Your task to perform on an android device: Open calendar and show me the second week of next month Image 0: 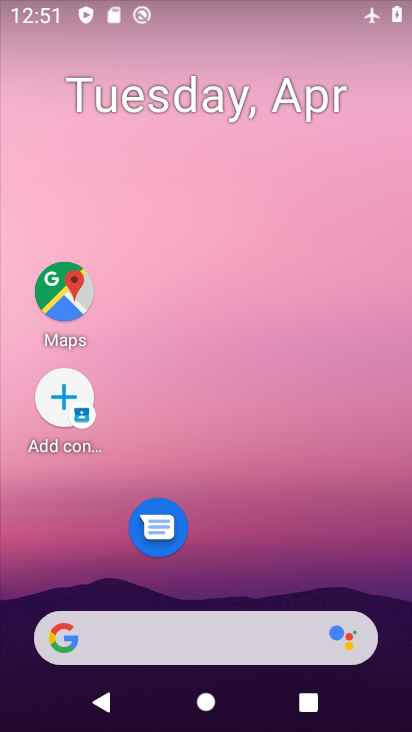
Step 0: drag from (232, 587) to (239, 37)
Your task to perform on an android device: Open calendar and show me the second week of next month Image 1: 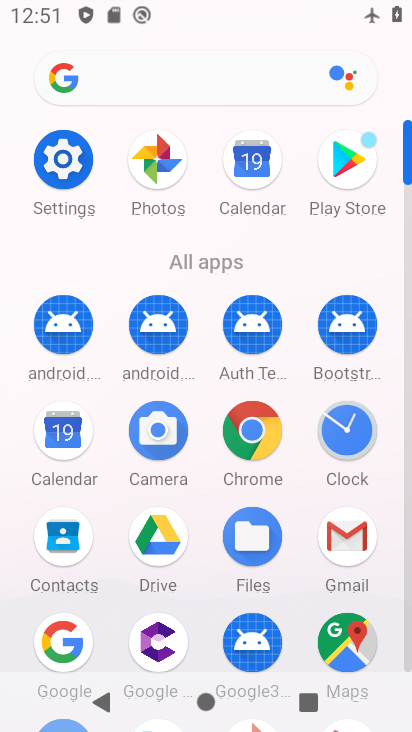
Step 1: click (59, 445)
Your task to perform on an android device: Open calendar and show me the second week of next month Image 2: 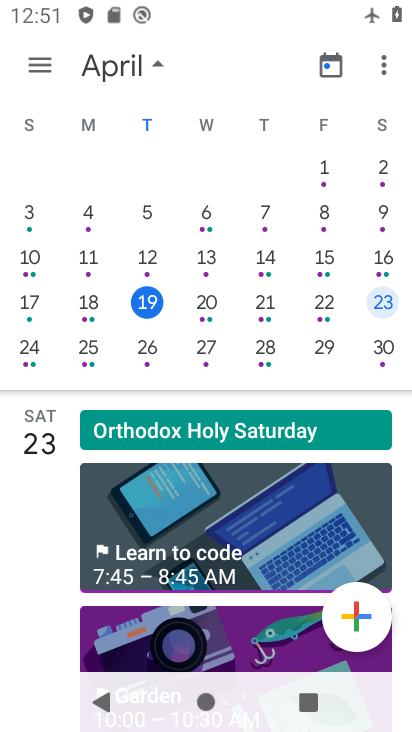
Step 2: drag from (299, 286) to (8, 281)
Your task to perform on an android device: Open calendar and show me the second week of next month Image 3: 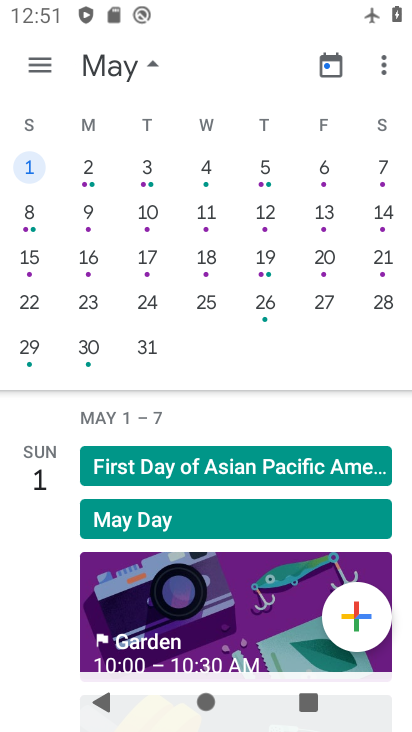
Step 3: click (84, 210)
Your task to perform on an android device: Open calendar and show me the second week of next month Image 4: 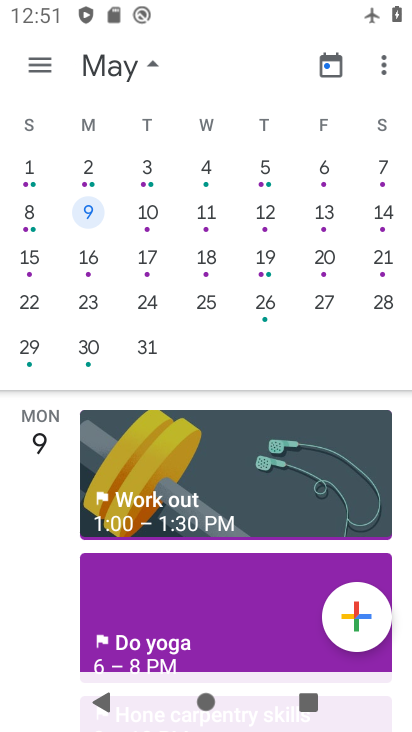
Step 4: click (45, 65)
Your task to perform on an android device: Open calendar and show me the second week of next month Image 5: 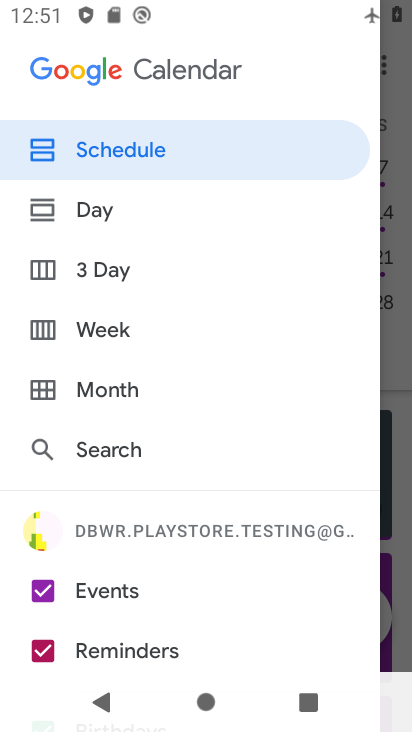
Step 5: click (113, 329)
Your task to perform on an android device: Open calendar and show me the second week of next month Image 6: 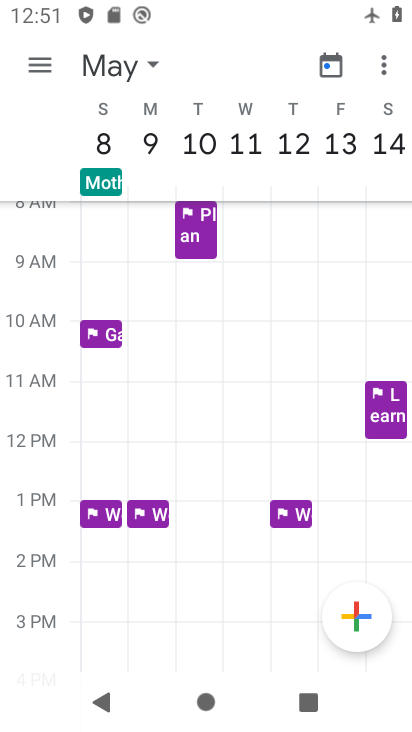
Step 6: task complete